Your task to perform on an android device: delete browsing data in the chrome app Image 0: 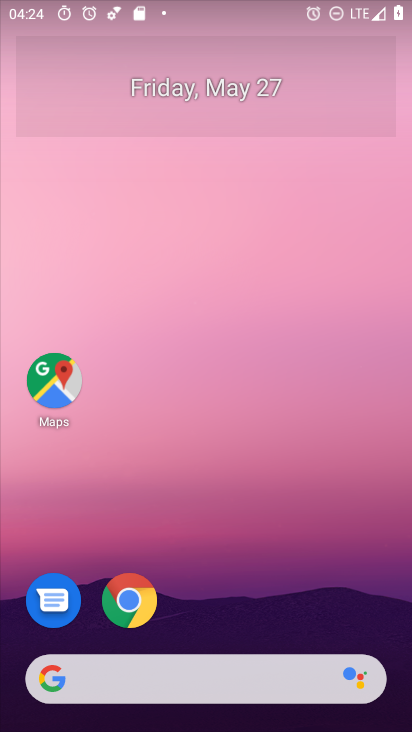
Step 0: click (125, 597)
Your task to perform on an android device: delete browsing data in the chrome app Image 1: 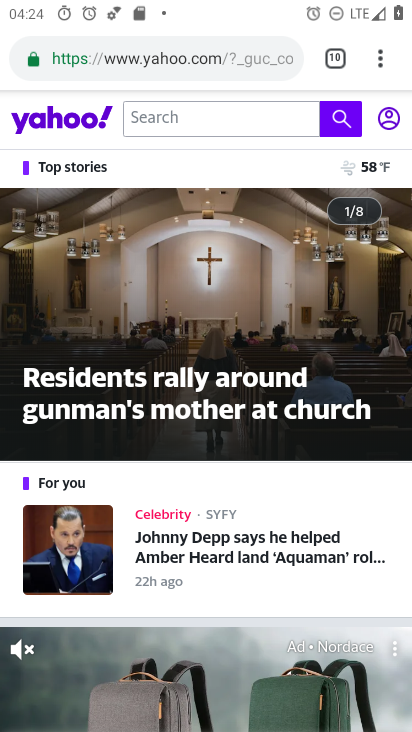
Step 1: click (380, 65)
Your task to perform on an android device: delete browsing data in the chrome app Image 2: 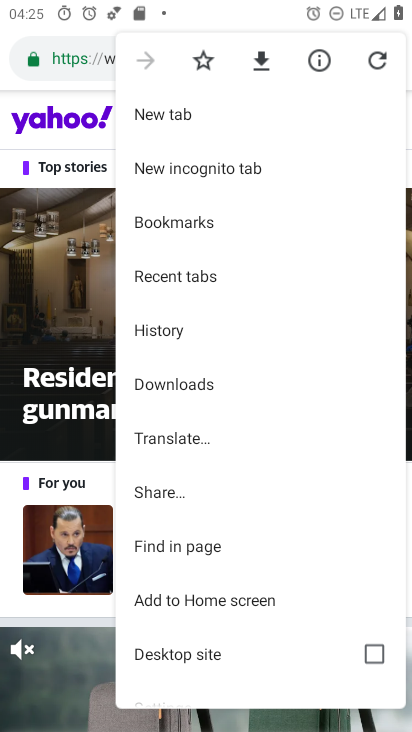
Step 2: click (158, 328)
Your task to perform on an android device: delete browsing data in the chrome app Image 3: 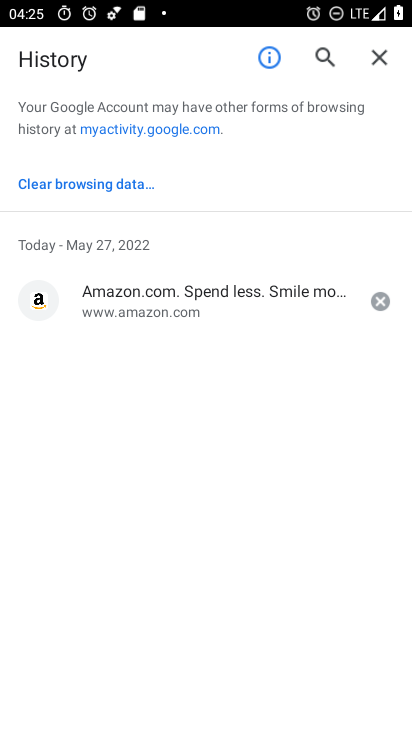
Step 3: click (119, 183)
Your task to perform on an android device: delete browsing data in the chrome app Image 4: 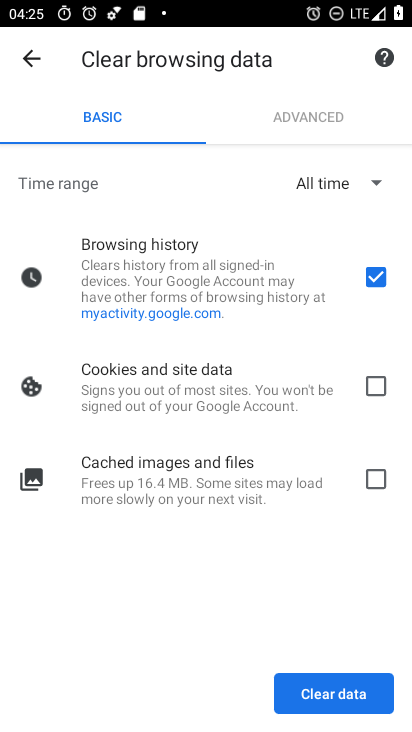
Step 4: click (341, 695)
Your task to perform on an android device: delete browsing data in the chrome app Image 5: 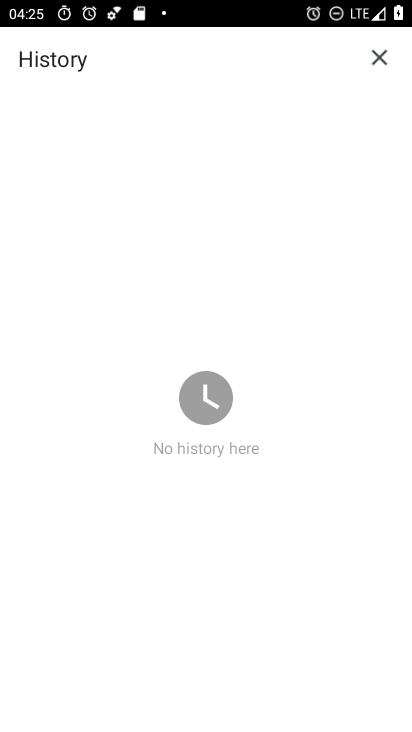
Step 5: task complete